Your task to perform on an android device: turn on wifi Image 0: 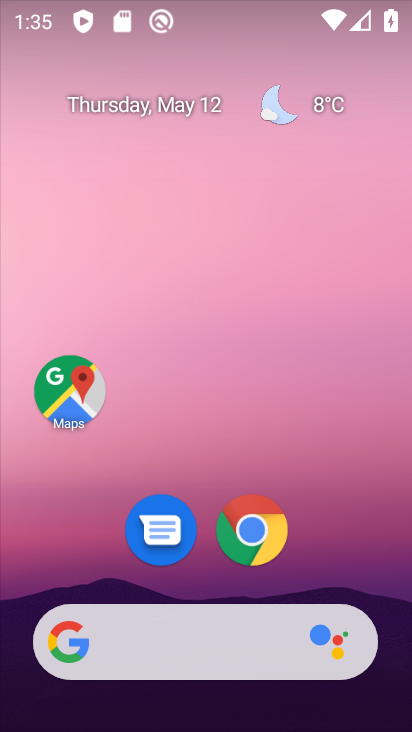
Step 0: drag from (265, 7) to (218, 517)
Your task to perform on an android device: turn on wifi Image 1: 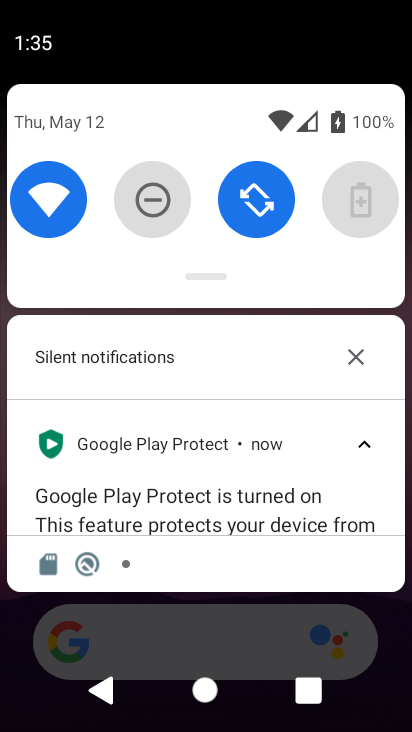
Step 1: task complete